Your task to perform on an android device: Go to internet settings Image 0: 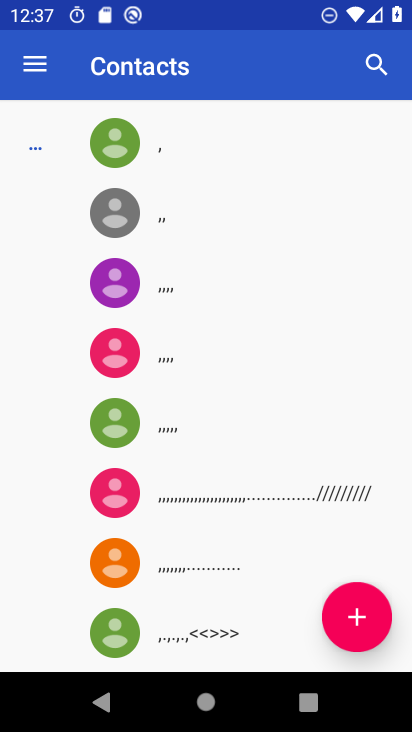
Step 0: press home button
Your task to perform on an android device: Go to internet settings Image 1: 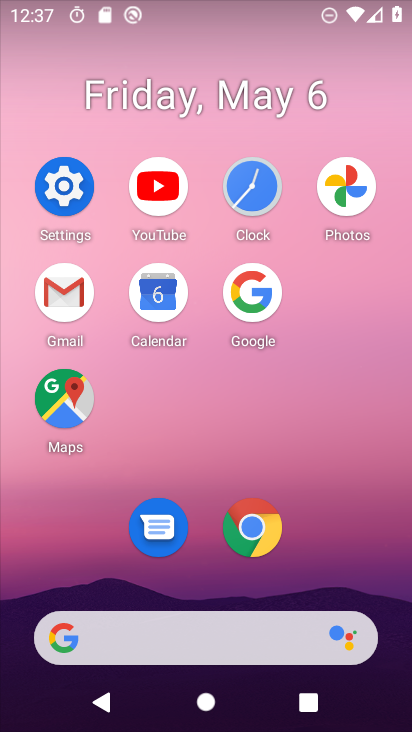
Step 1: click (64, 192)
Your task to perform on an android device: Go to internet settings Image 2: 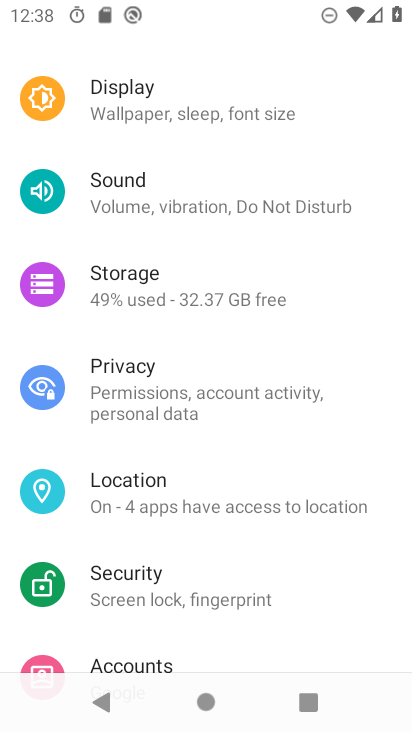
Step 2: drag from (254, 168) to (329, 499)
Your task to perform on an android device: Go to internet settings Image 3: 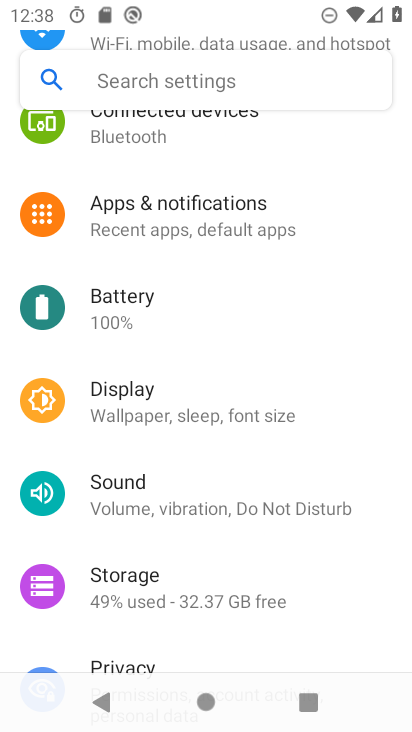
Step 3: drag from (225, 149) to (262, 456)
Your task to perform on an android device: Go to internet settings Image 4: 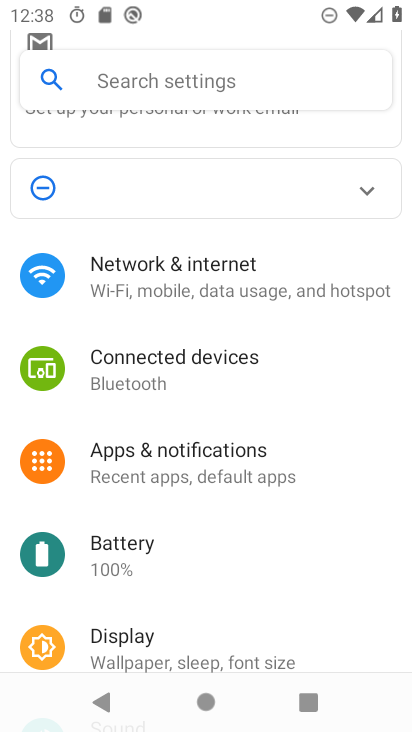
Step 4: click (228, 284)
Your task to perform on an android device: Go to internet settings Image 5: 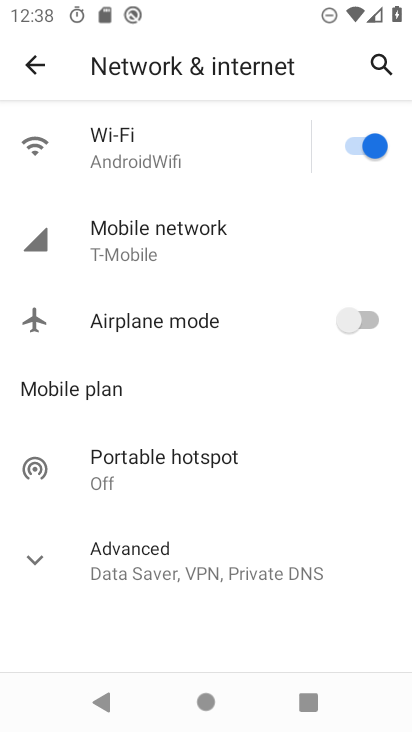
Step 5: click (155, 260)
Your task to perform on an android device: Go to internet settings Image 6: 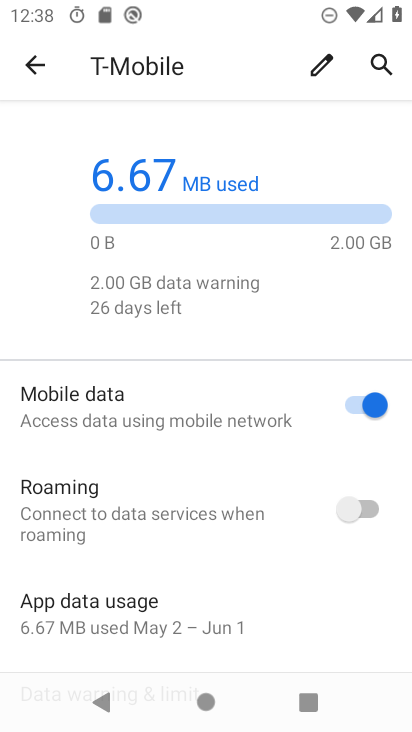
Step 6: task complete